Your task to perform on an android device: Find coffee shops on Maps Image 0: 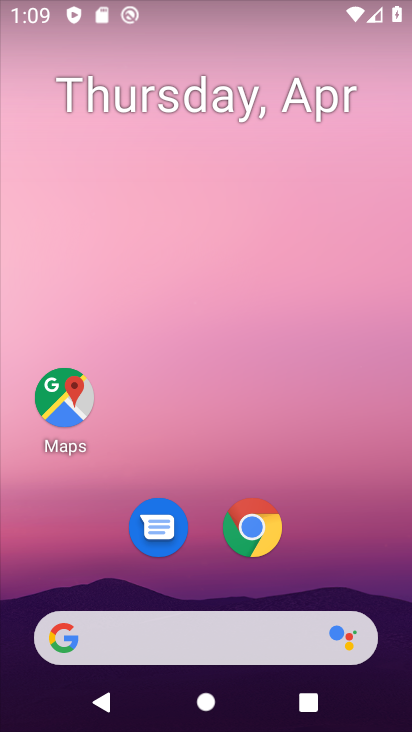
Step 0: click (60, 398)
Your task to perform on an android device: Find coffee shops on Maps Image 1: 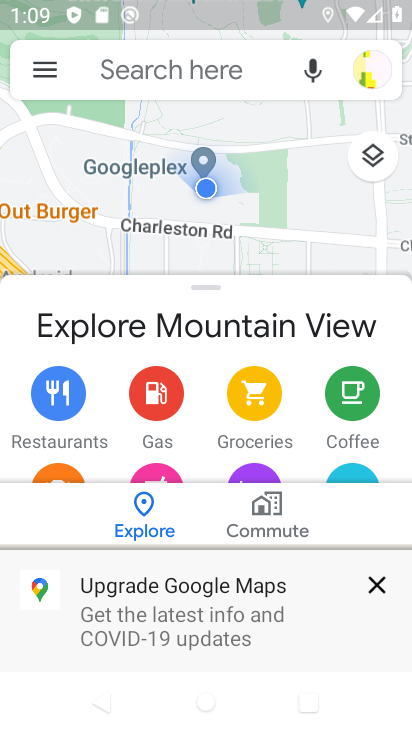
Step 1: click (149, 71)
Your task to perform on an android device: Find coffee shops on Maps Image 2: 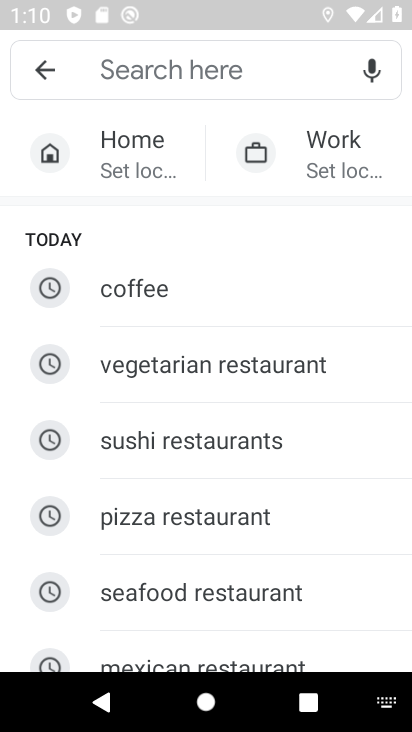
Step 2: type "coffee"
Your task to perform on an android device: Find coffee shops on Maps Image 3: 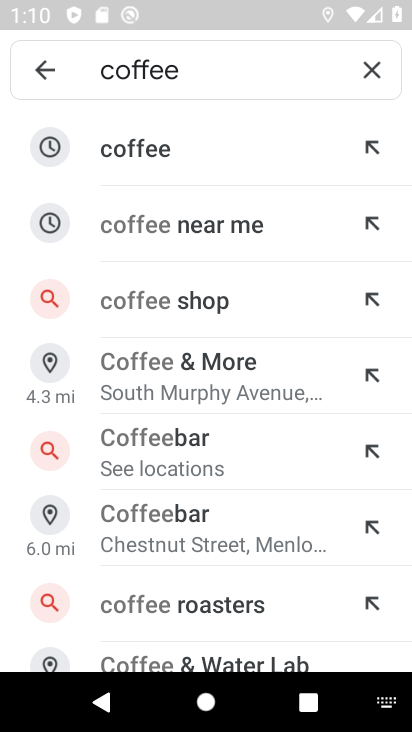
Step 3: click (128, 142)
Your task to perform on an android device: Find coffee shops on Maps Image 4: 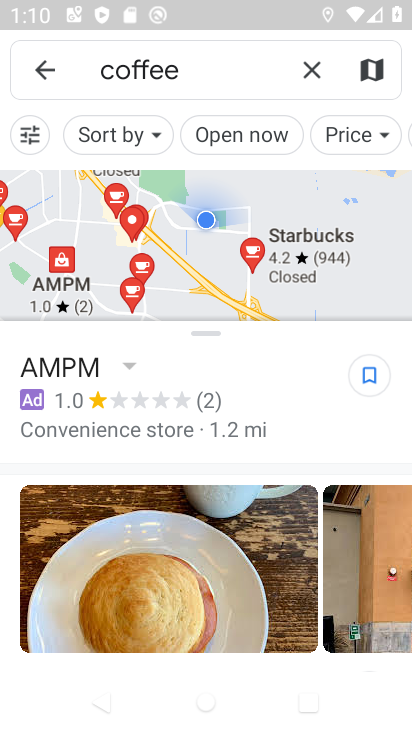
Step 4: task complete